Your task to perform on an android device: Search for "dell xps" on amazon.com, select the first entry, add it to the cart, then select checkout. Image 0: 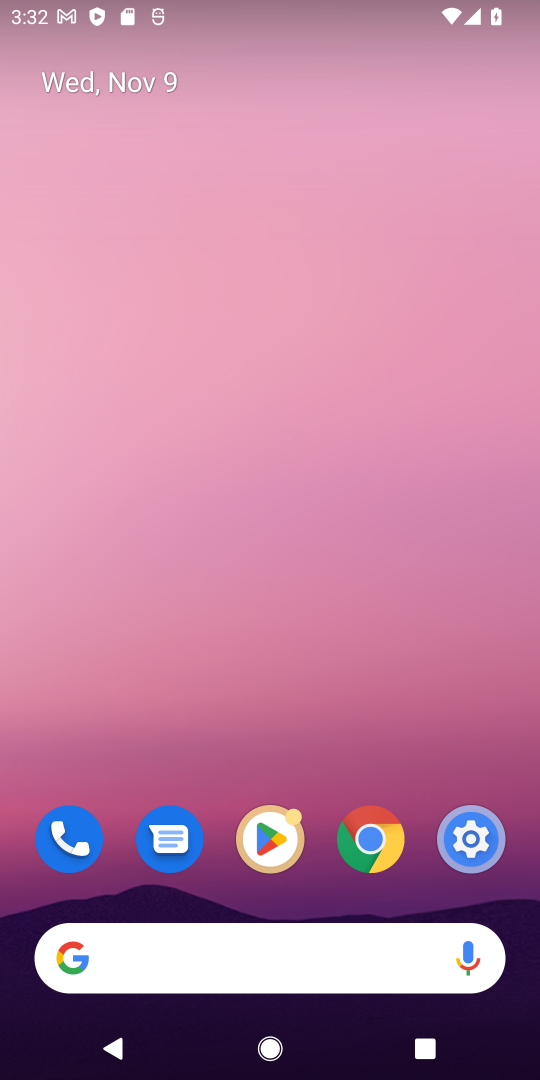
Step 0: click (267, 970)
Your task to perform on an android device: Search for "dell xps" on amazon.com, select the first entry, add it to the cart, then select checkout. Image 1: 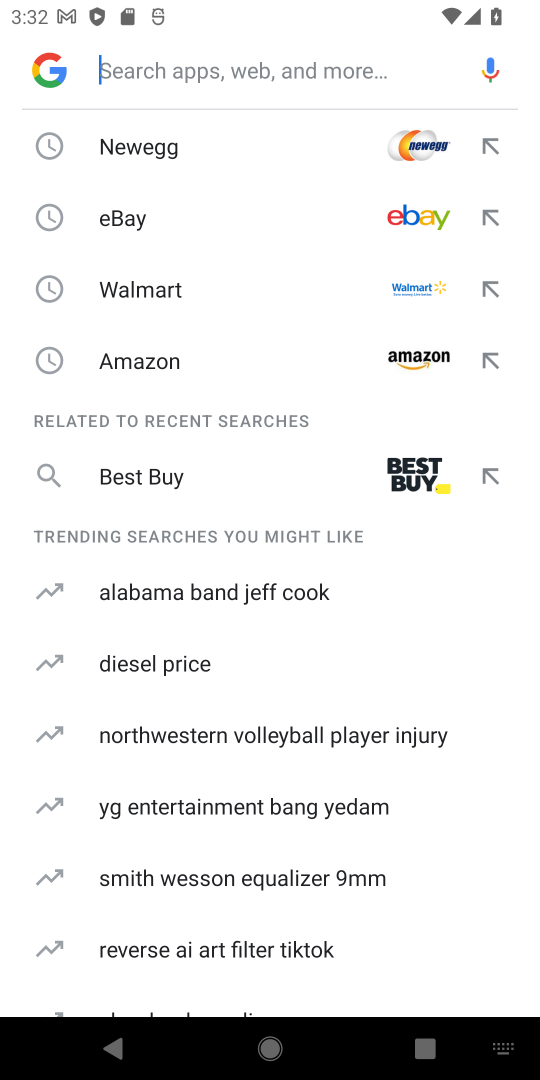
Step 1: type "ama"
Your task to perform on an android device: Search for "dell xps" on amazon.com, select the first entry, add it to the cart, then select checkout. Image 2: 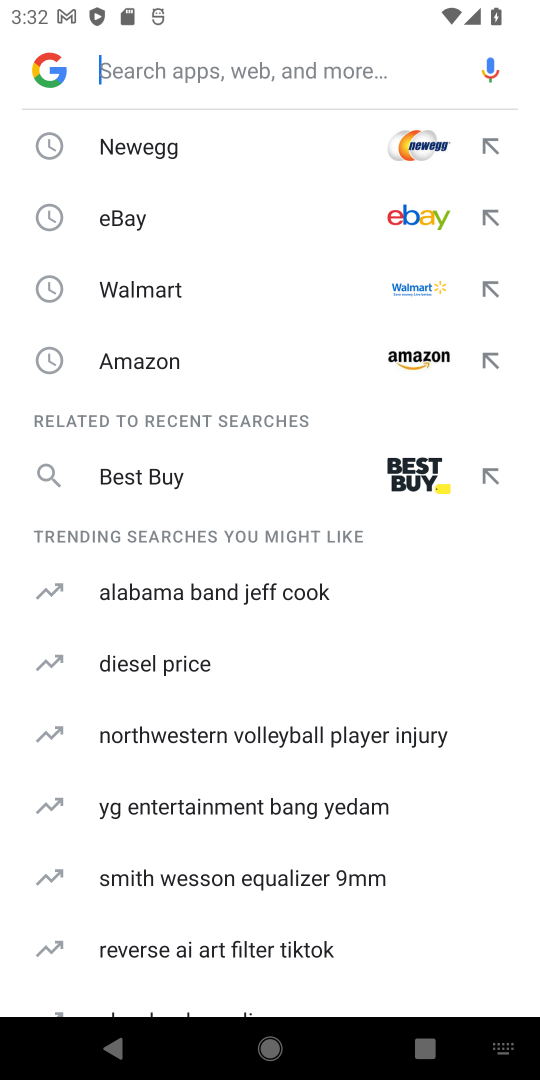
Step 2: click (301, 349)
Your task to perform on an android device: Search for "dell xps" on amazon.com, select the first entry, add it to the cart, then select checkout. Image 3: 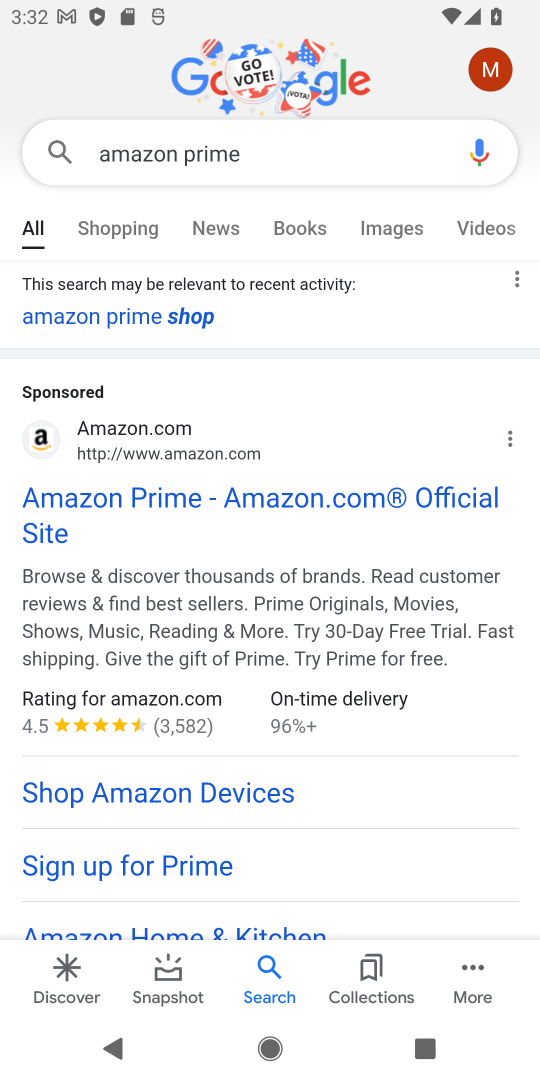
Step 3: click (199, 507)
Your task to perform on an android device: Search for "dell xps" on amazon.com, select the first entry, add it to the cart, then select checkout. Image 4: 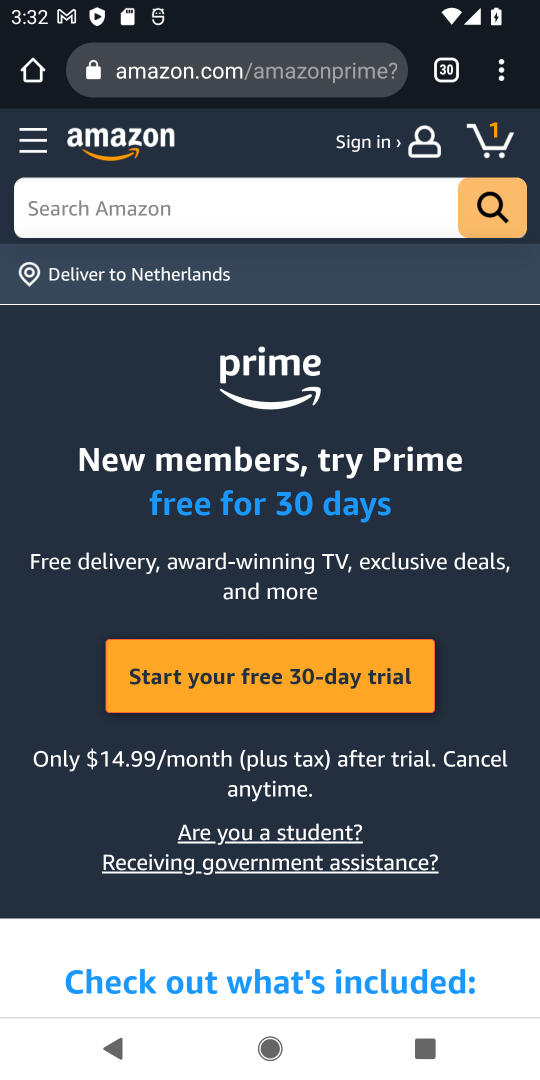
Step 4: click (233, 217)
Your task to perform on an android device: Search for "dell xps" on amazon.com, select the first entry, add it to the cart, then select checkout. Image 5: 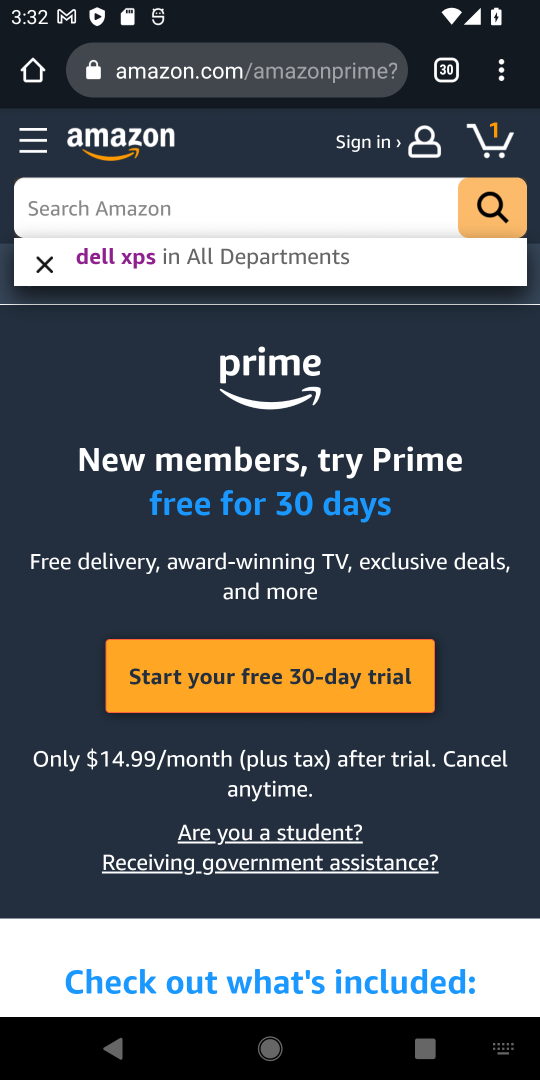
Step 5: type "dell xps"
Your task to perform on an android device: Search for "dell xps" on amazon.com, select the first entry, add it to the cart, then select checkout. Image 6: 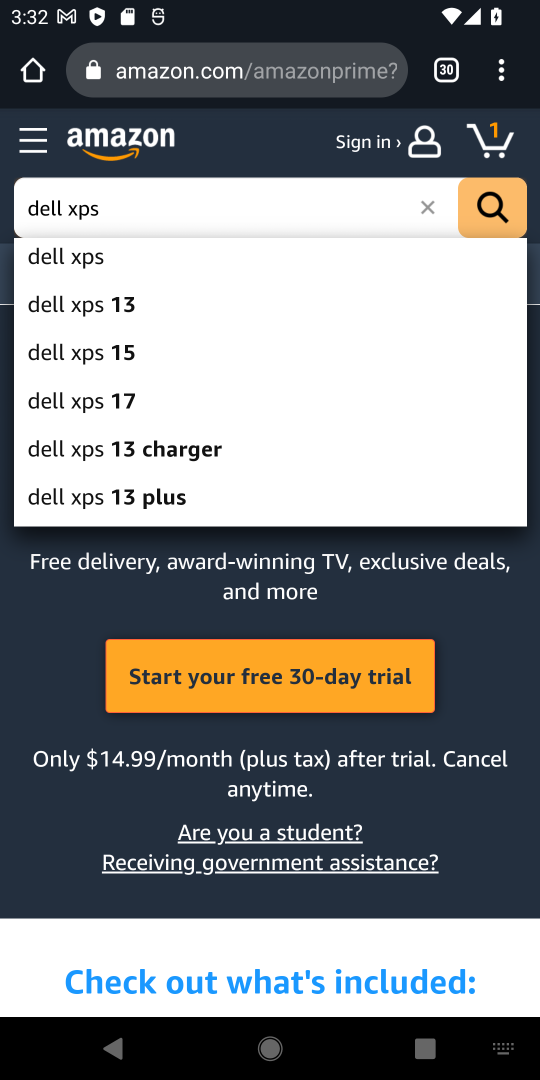
Step 6: click (137, 271)
Your task to perform on an android device: Search for "dell xps" on amazon.com, select the first entry, add it to the cart, then select checkout. Image 7: 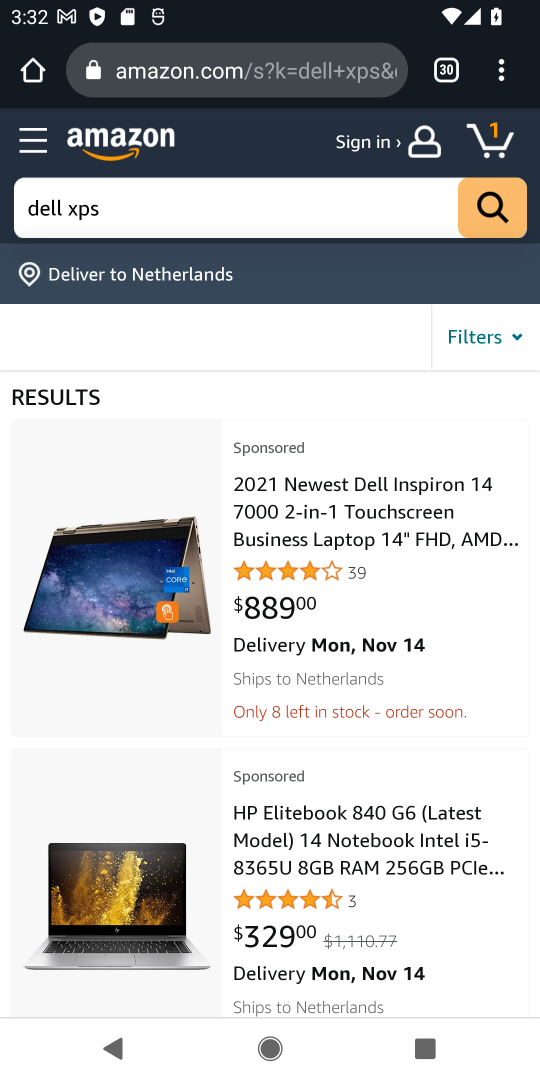
Step 7: click (299, 603)
Your task to perform on an android device: Search for "dell xps" on amazon.com, select the first entry, add it to the cart, then select checkout. Image 8: 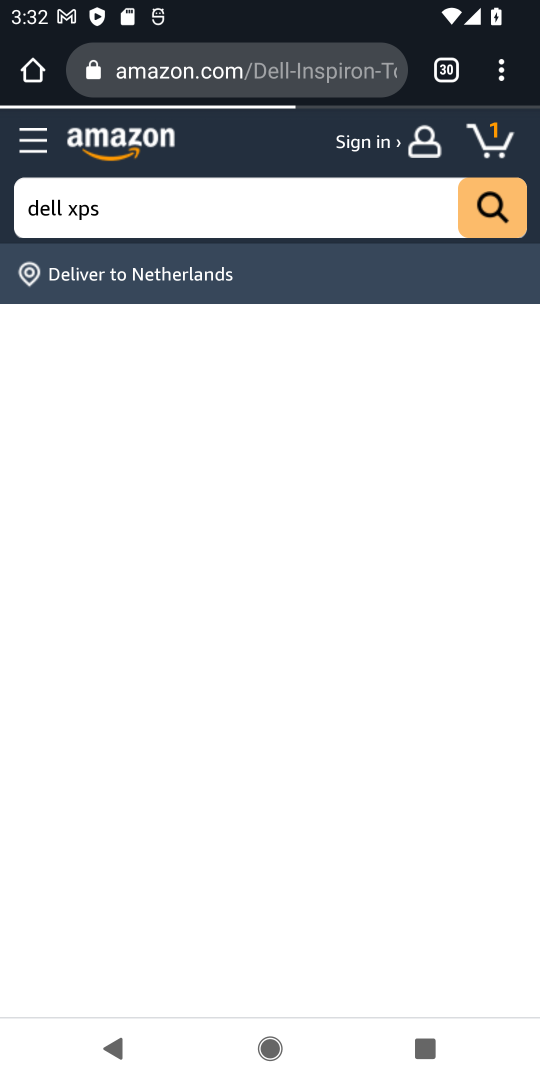
Step 8: click (371, 529)
Your task to perform on an android device: Search for "dell xps" on amazon.com, select the first entry, add it to the cart, then select checkout. Image 9: 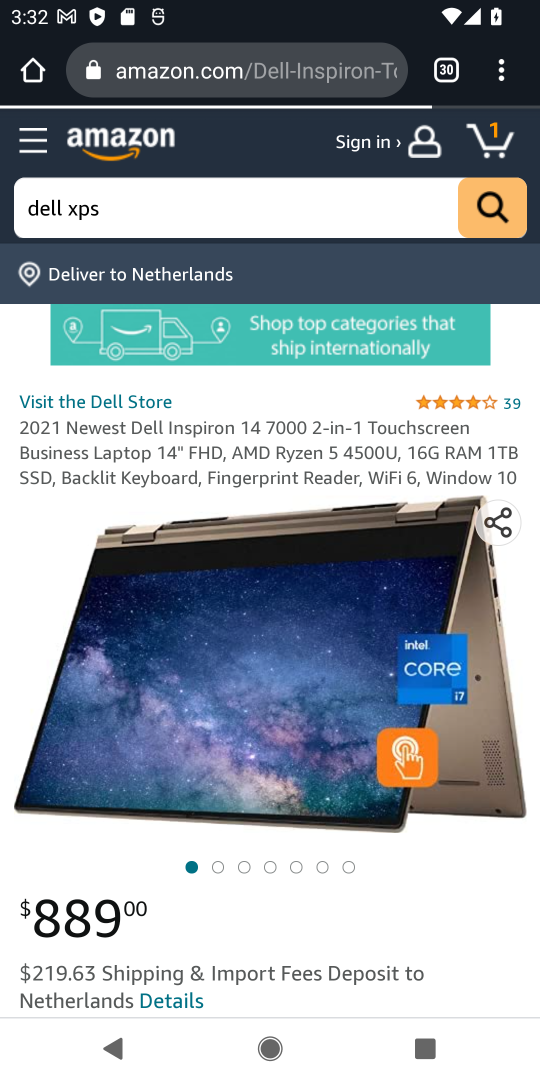
Step 9: drag from (288, 915) to (384, 446)
Your task to perform on an android device: Search for "dell xps" on amazon.com, select the first entry, add it to the cart, then select checkout. Image 10: 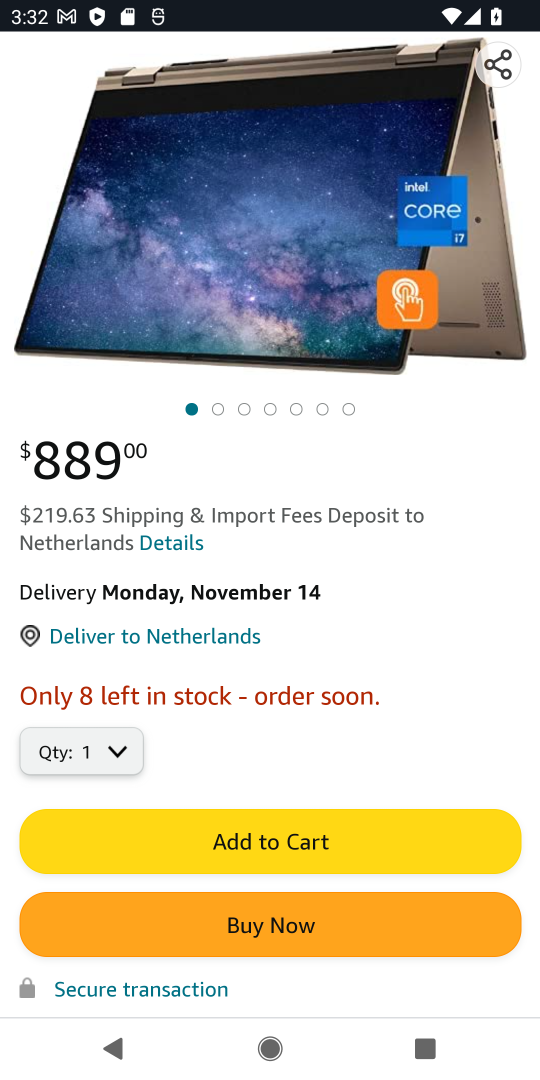
Step 10: click (334, 867)
Your task to perform on an android device: Search for "dell xps" on amazon.com, select the first entry, add it to the cart, then select checkout. Image 11: 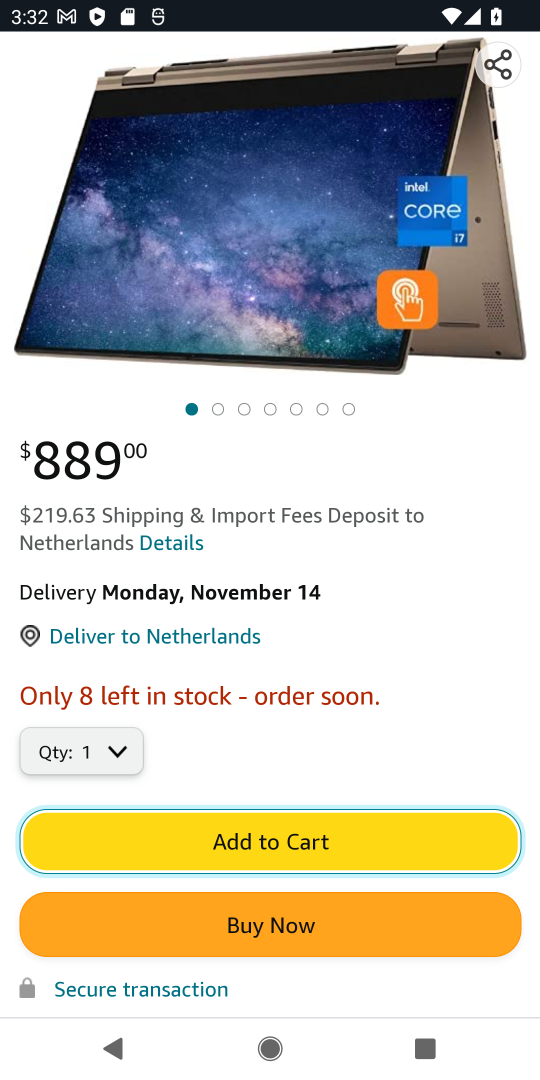
Step 11: task complete